Your task to perform on an android device: Search for sushi restaurants on Maps Image 0: 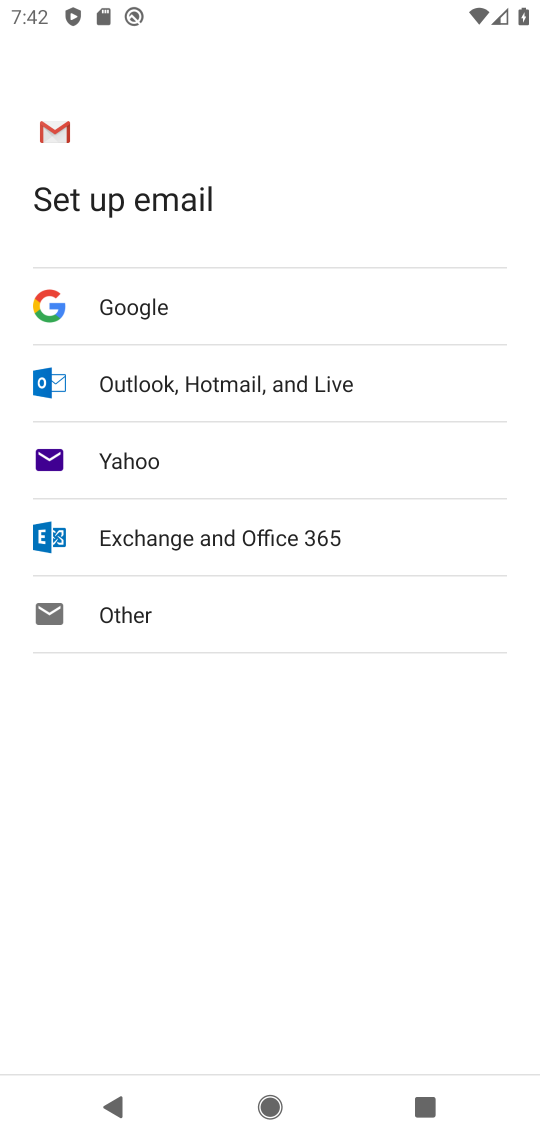
Step 0: press home button
Your task to perform on an android device: Search for sushi restaurants on Maps Image 1: 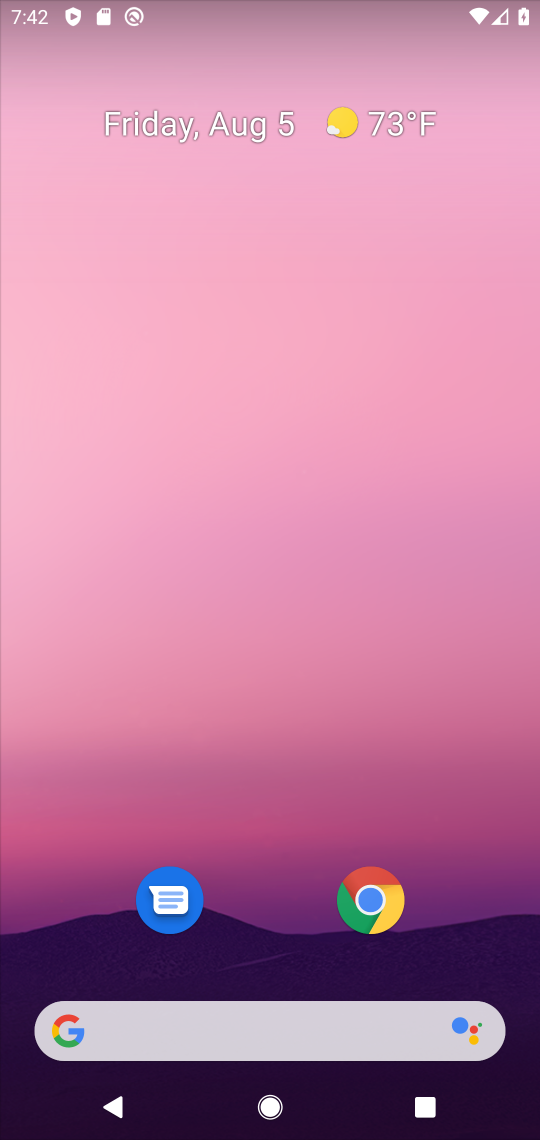
Step 1: drag from (177, 978) to (194, 387)
Your task to perform on an android device: Search for sushi restaurants on Maps Image 2: 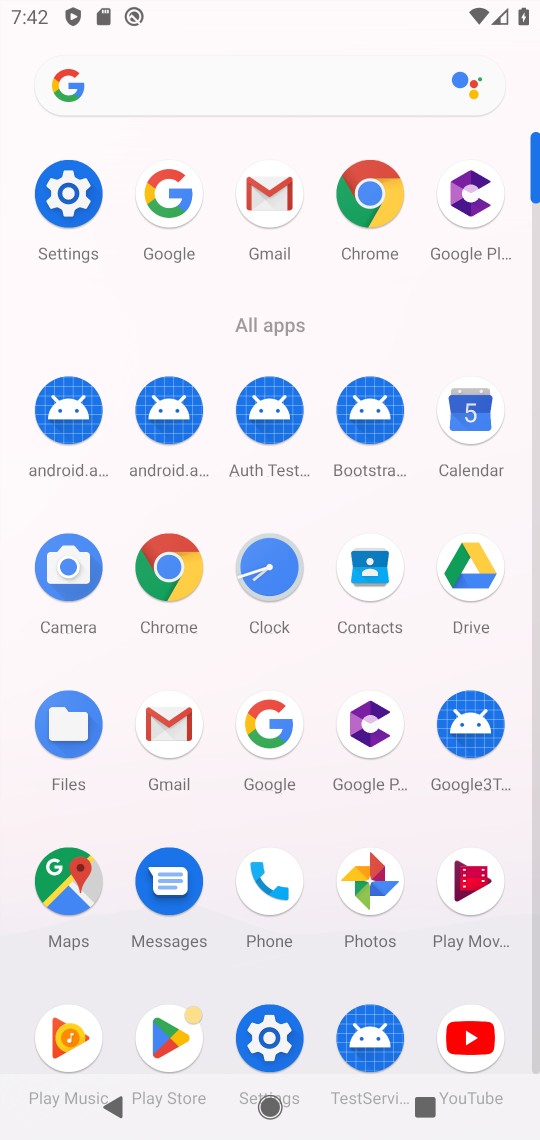
Step 2: click (54, 887)
Your task to perform on an android device: Search for sushi restaurants on Maps Image 3: 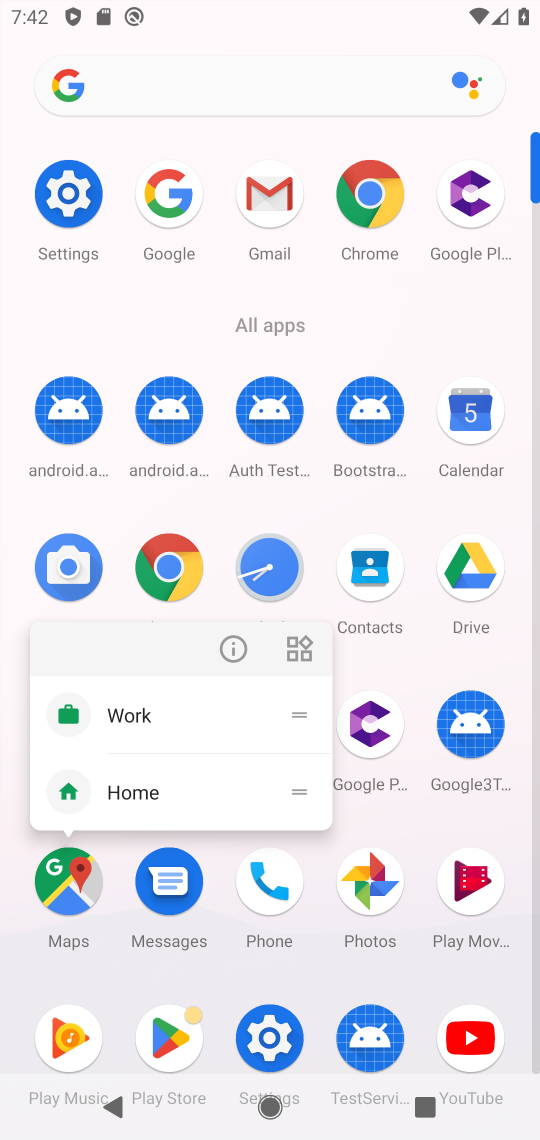
Step 3: click (59, 893)
Your task to perform on an android device: Search for sushi restaurants on Maps Image 4: 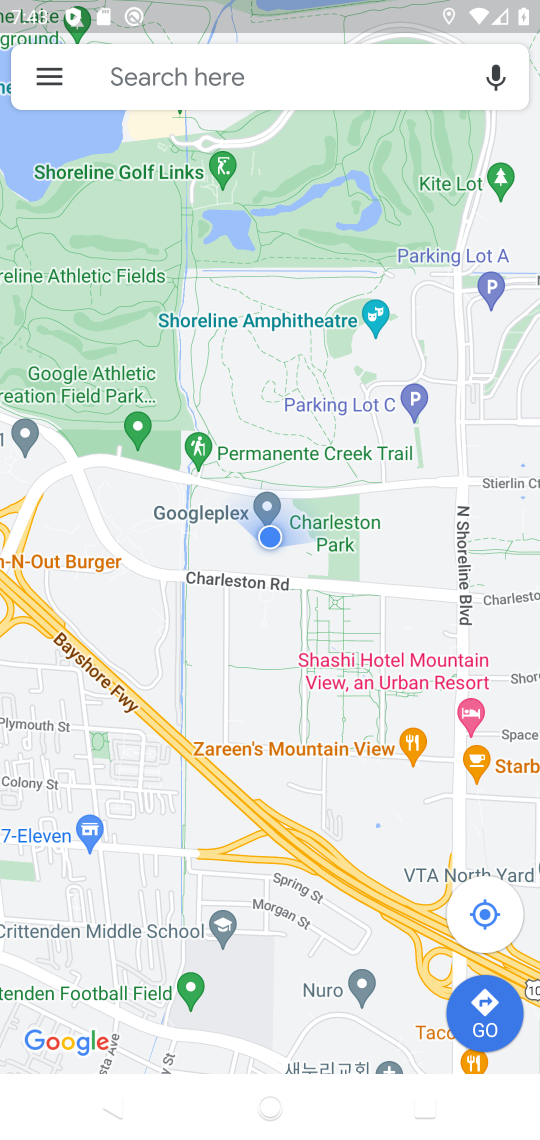
Step 4: click (243, 74)
Your task to perform on an android device: Search for sushi restaurants on Maps Image 5: 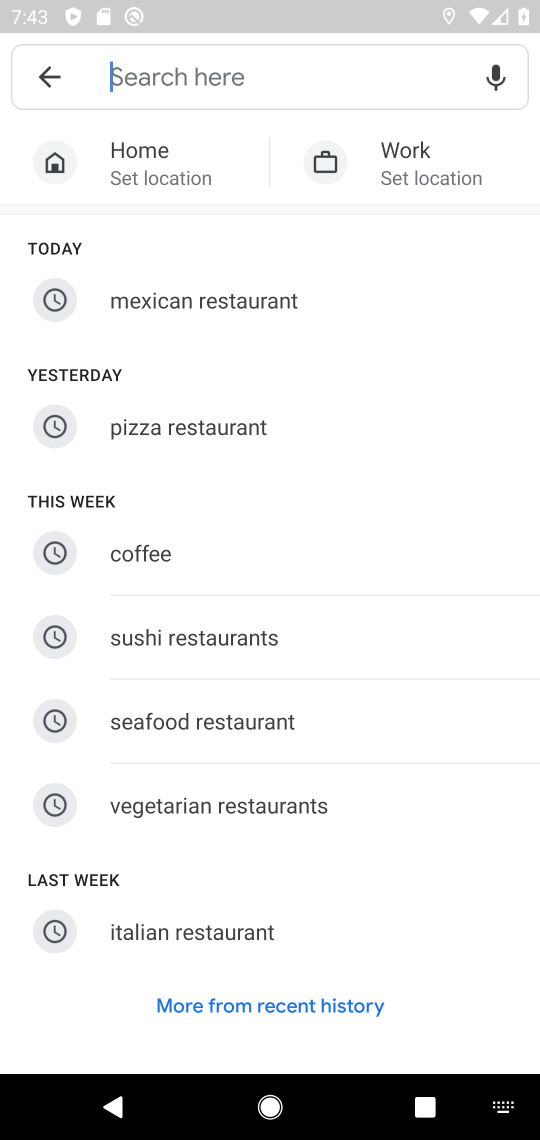
Step 5: click (178, 630)
Your task to perform on an android device: Search for sushi restaurants on Maps Image 6: 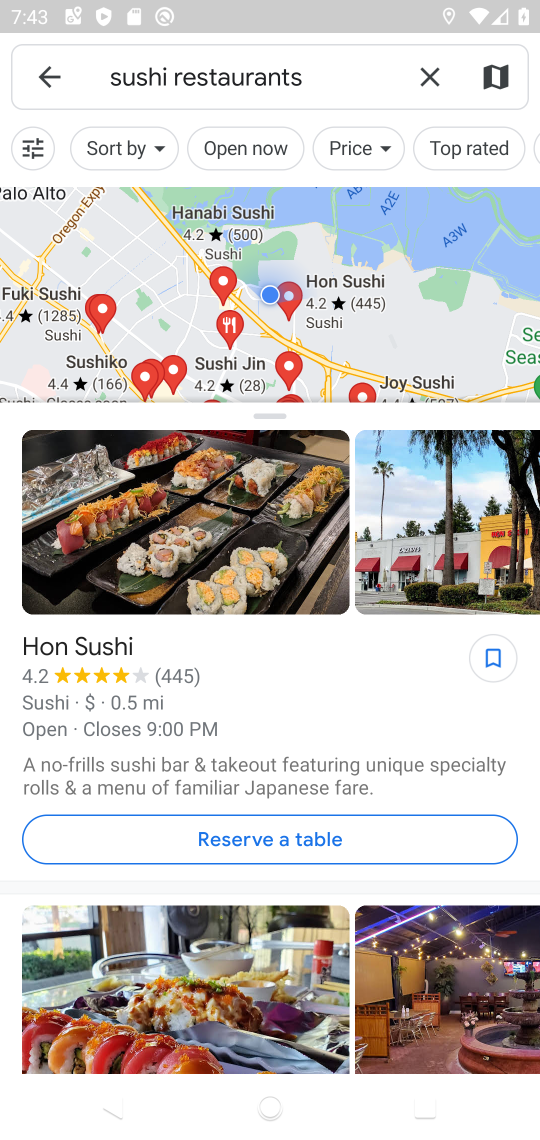
Step 6: task complete